Your task to perform on an android device: Open settings on Google Maps Image 0: 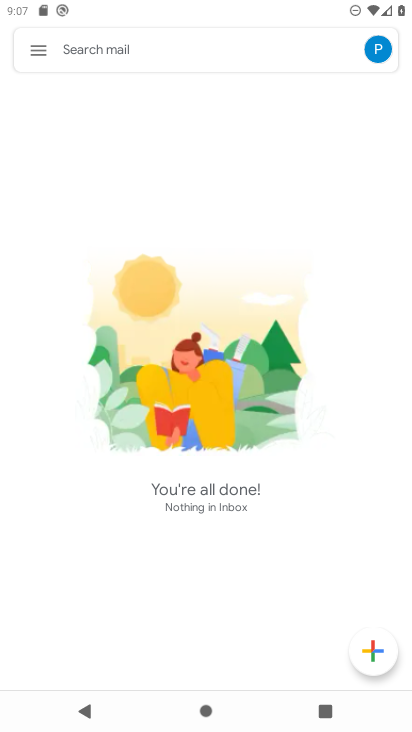
Step 0: press home button
Your task to perform on an android device: Open settings on Google Maps Image 1: 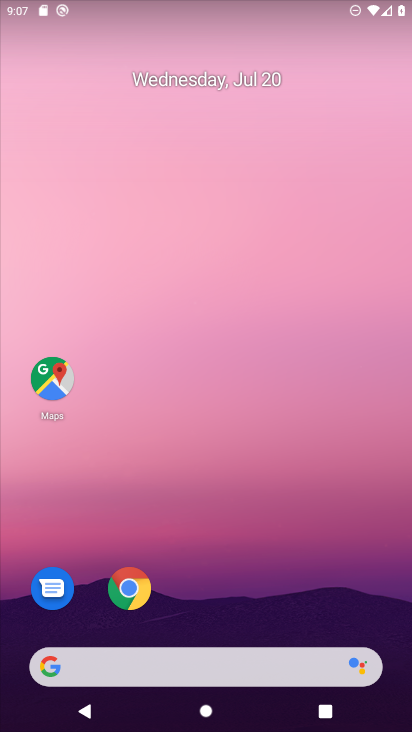
Step 1: click (53, 380)
Your task to perform on an android device: Open settings on Google Maps Image 2: 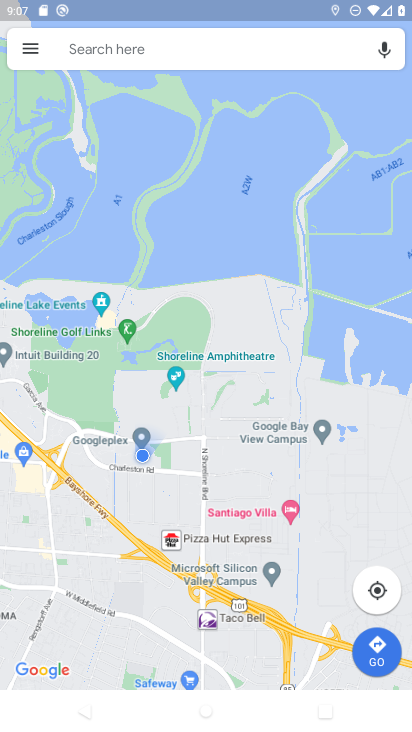
Step 2: click (41, 41)
Your task to perform on an android device: Open settings on Google Maps Image 3: 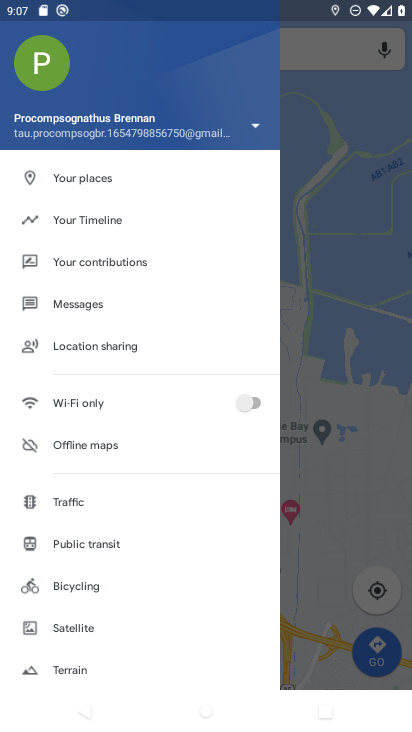
Step 3: drag from (151, 576) to (189, 266)
Your task to perform on an android device: Open settings on Google Maps Image 4: 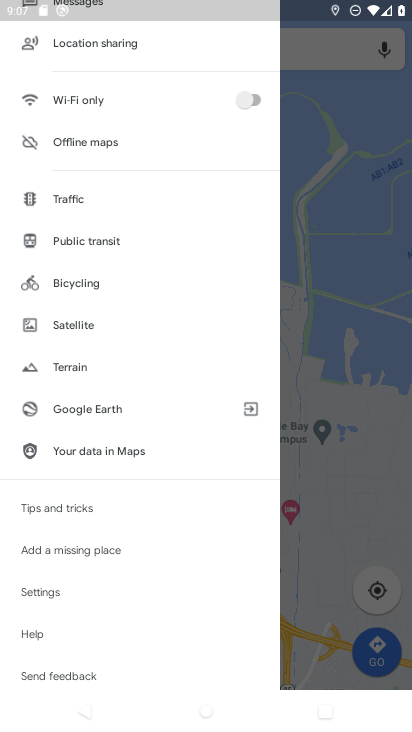
Step 4: click (80, 592)
Your task to perform on an android device: Open settings on Google Maps Image 5: 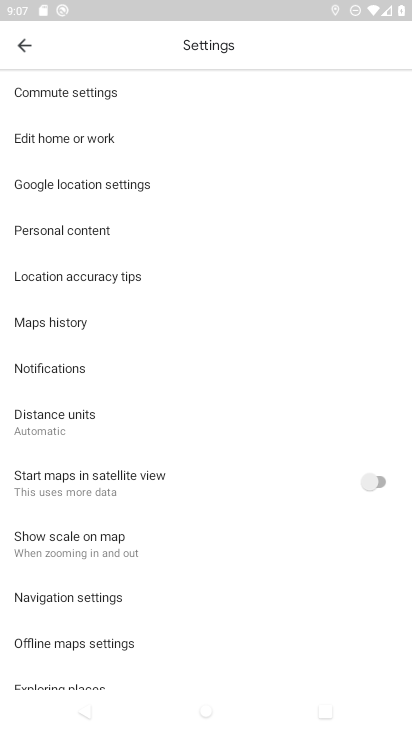
Step 5: task complete